Your task to perform on an android device: Set the phone to "Do not disturb". Image 0: 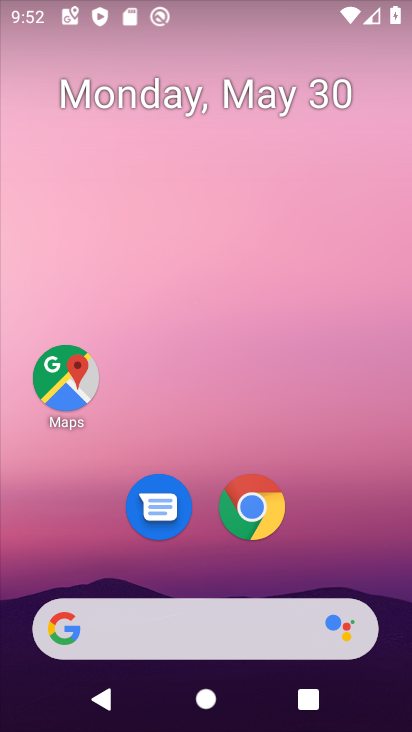
Step 0: drag from (240, 18) to (224, 528)
Your task to perform on an android device: Set the phone to "Do not disturb". Image 1: 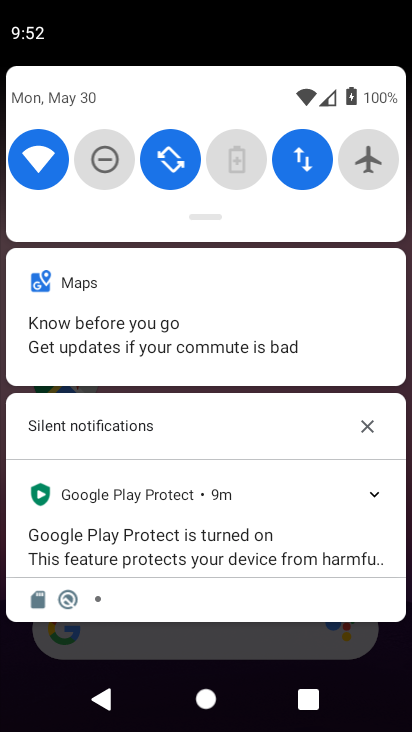
Step 1: drag from (210, 218) to (210, 544)
Your task to perform on an android device: Set the phone to "Do not disturb". Image 2: 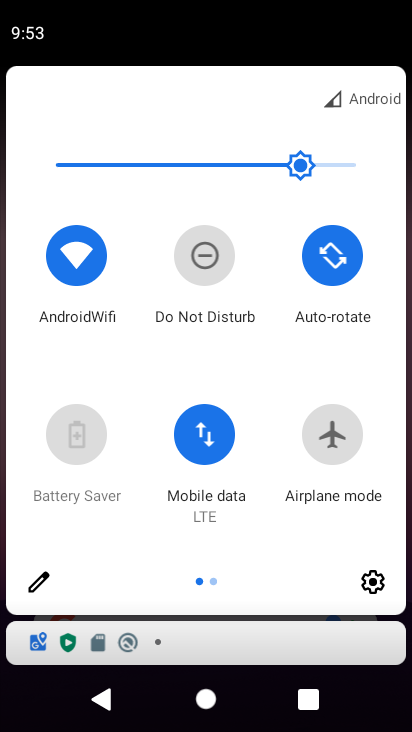
Step 2: click (219, 262)
Your task to perform on an android device: Set the phone to "Do not disturb". Image 3: 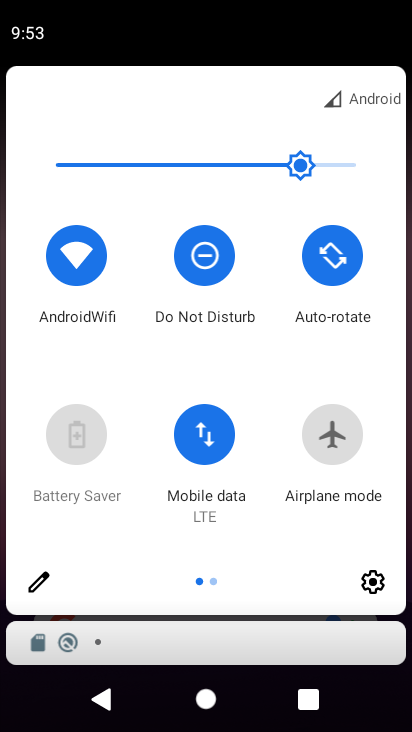
Step 3: task complete